Your task to perform on an android device: open chrome and create a bookmark for the current page Image 0: 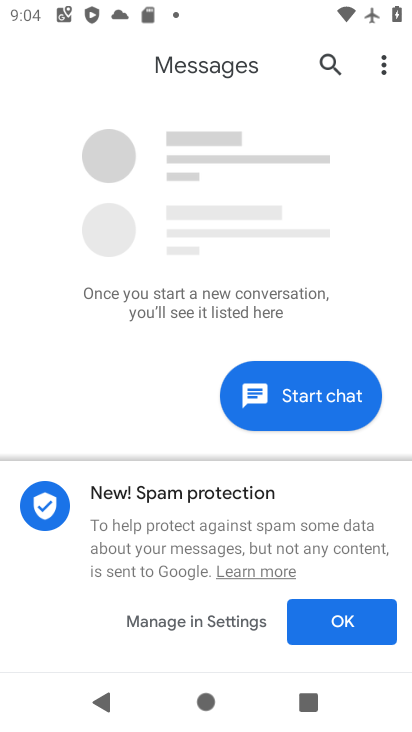
Step 0: press home button
Your task to perform on an android device: open chrome and create a bookmark for the current page Image 1: 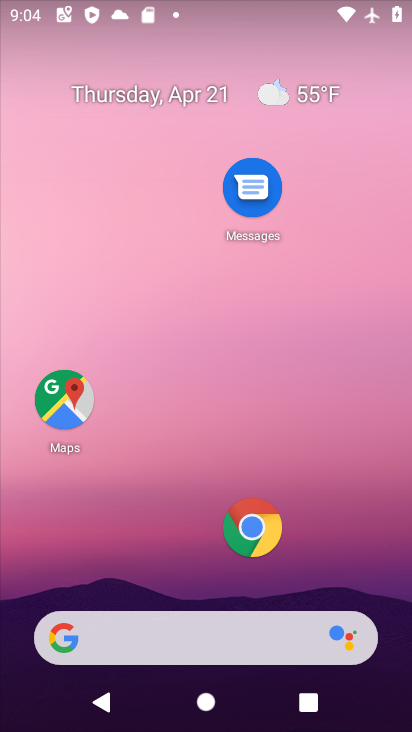
Step 1: drag from (159, 627) to (357, 113)
Your task to perform on an android device: open chrome and create a bookmark for the current page Image 2: 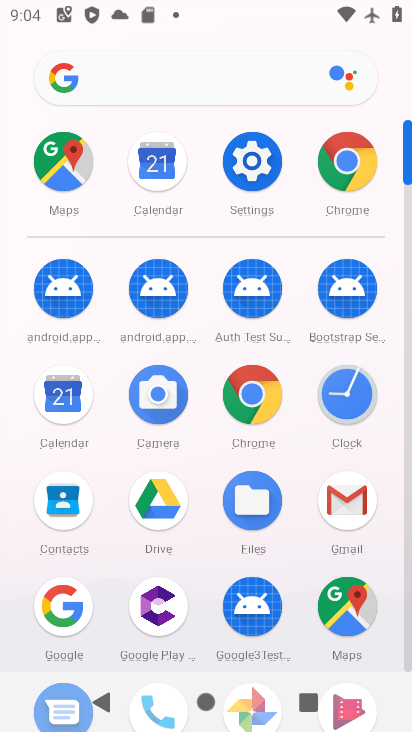
Step 2: click (365, 164)
Your task to perform on an android device: open chrome and create a bookmark for the current page Image 3: 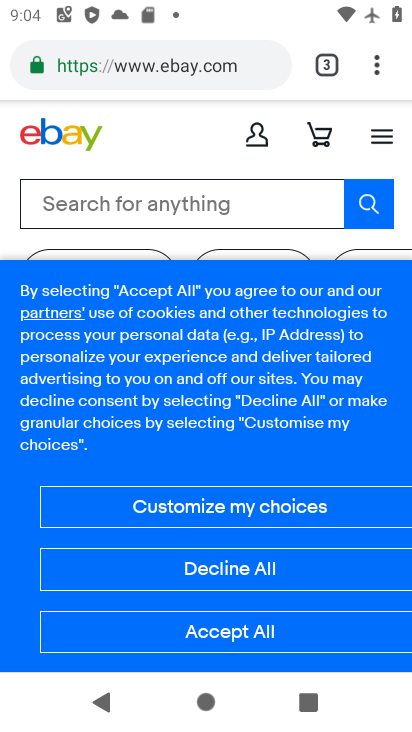
Step 3: click (367, 81)
Your task to perform on an android device: open chrome and create a bookmark for the current page Image 4: 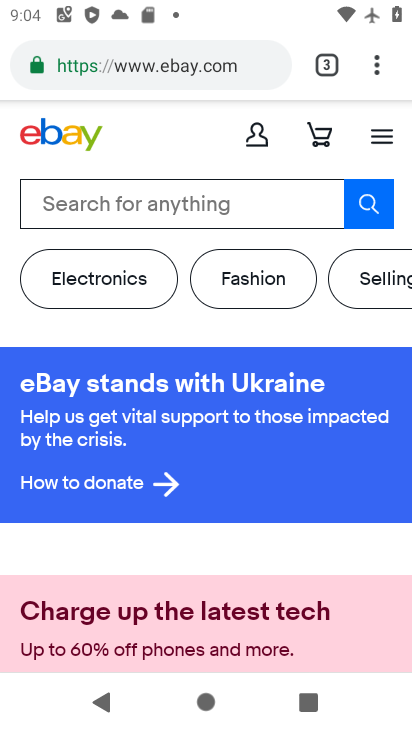
Step 4: click (367, 80)
Your task to perform on an android device: open chrome and create a bookmark for the current page Image 5: 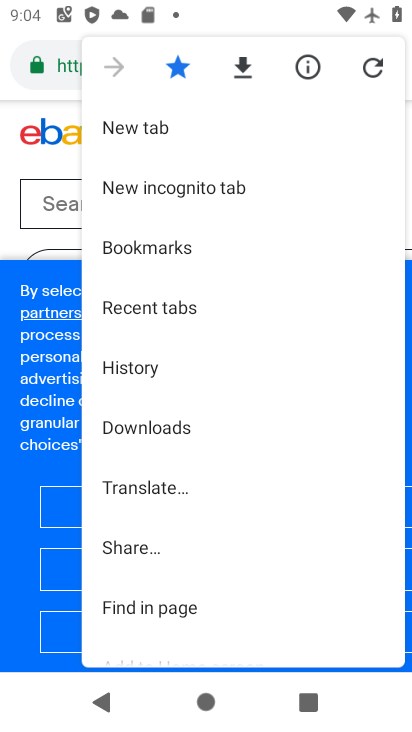
Step 5: task complete